Your task to perform on an android device: turn off translation in the chrome app Image 0: 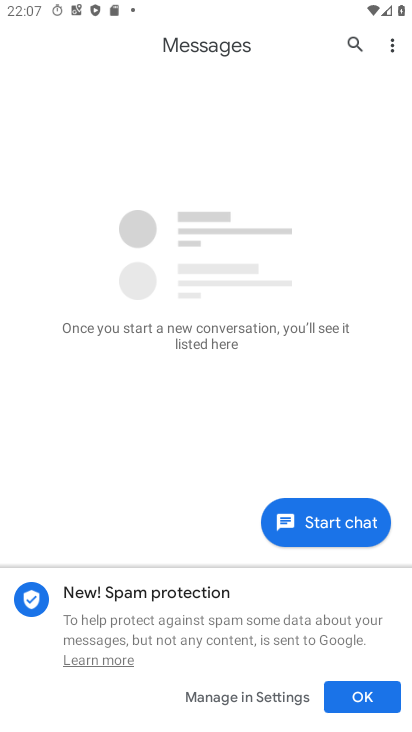
Step 0: press back button
Your task to perform on an android device: turn off translation in the chrome app Image 1: 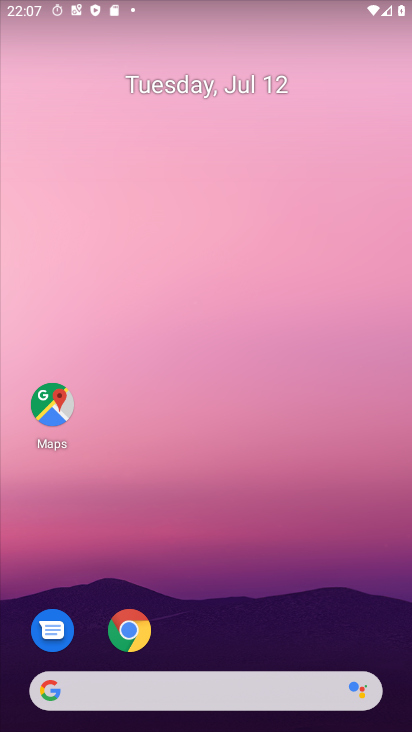
Step 1: click (129, 627)
Your task to perform on an android device: turn off translation in the chrome app Image 2: 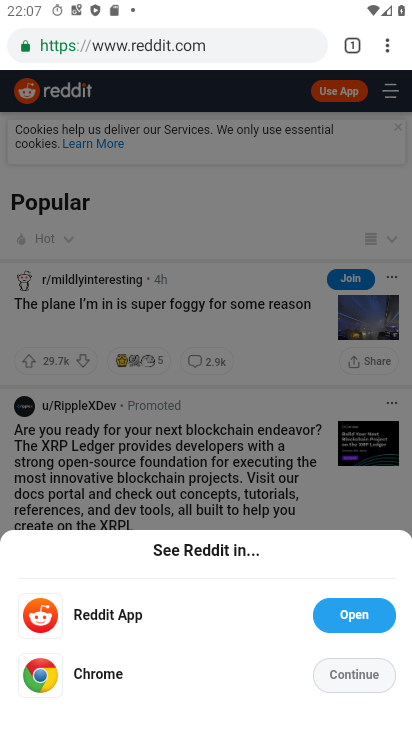
Step 2: drag from (389, 38) to (228, 544)
Your task to perform on an android device: turn off translation in the chrome app Image 3: 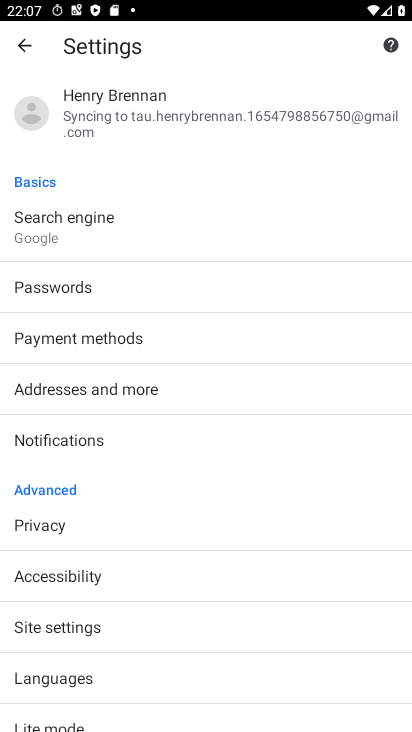
Step 3: click (107, 676)
Your task to perform on an android device: turn off translation in the chrome app Image 4: 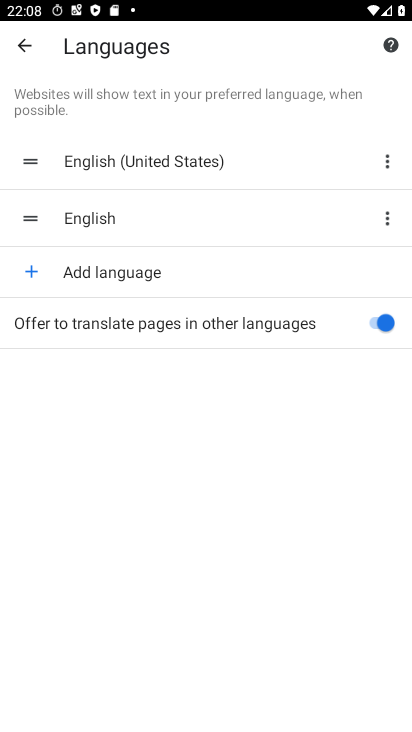
Step 4: click (377, 324)
Your task to perform on an android device: turn off translation in the chrome app Image 5: 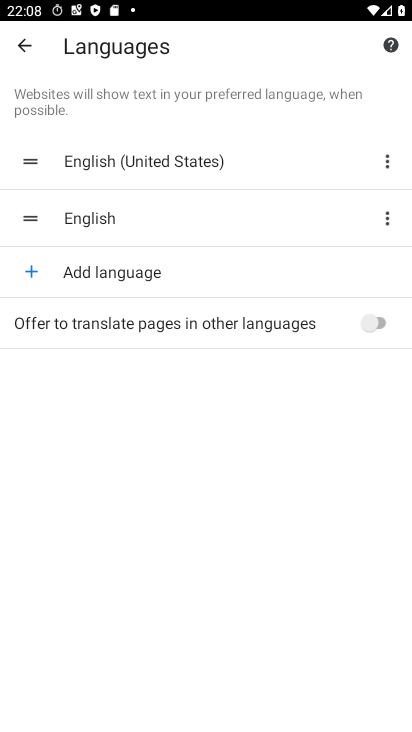
Step 5: task complete